Your task to perform on an android device: Toggle the flashlight Image 0: 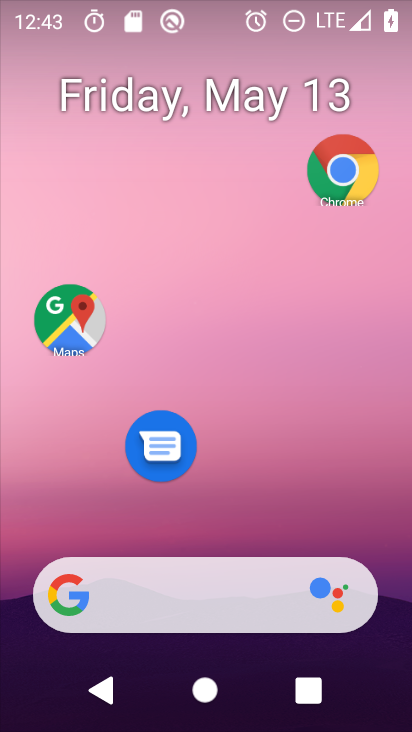
Step 0: click (178, 37)
Your task to perform on an android device: Toggle the flashlight Image 1: 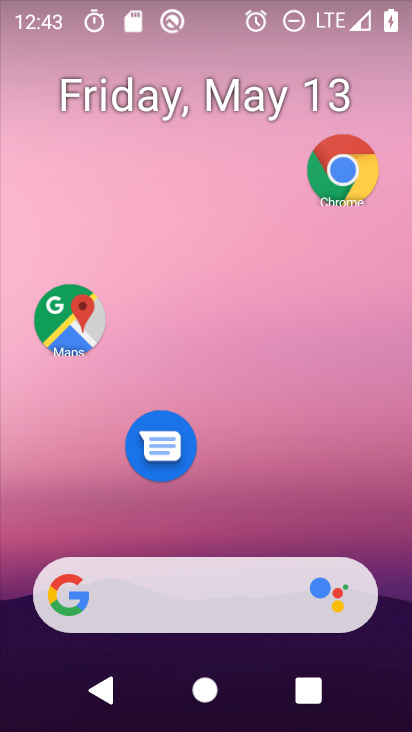
Step 1: drag from (238, 478) to (233, 10)
Your task to perform on an android device: Toggle the flashlight Image 2: 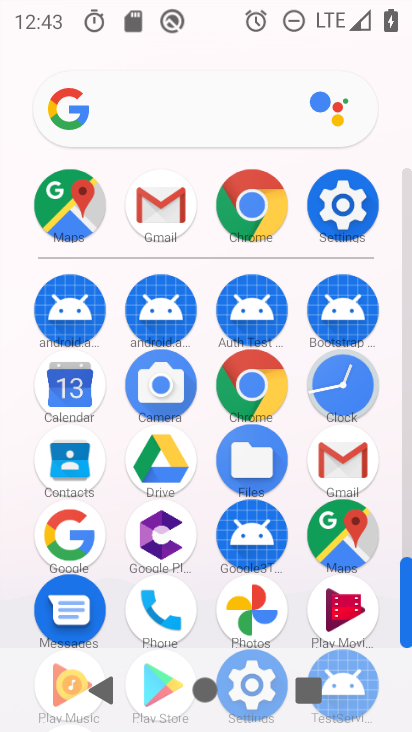
Step 2: click (350, 211)
Your task to perform on an android device: Toggle the flashlight Image 3: 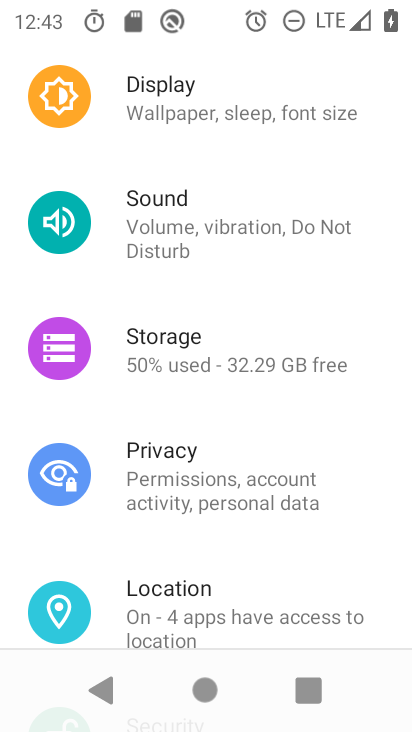
Step 3: task complete